Your task to perform on an android device: Go to network settings Image 0: 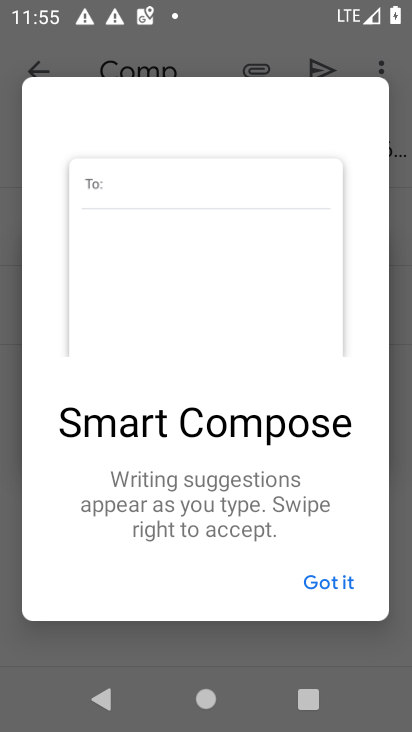
Step 0: press home button
Your task to perform on an android device: Go to network settings Image 1: 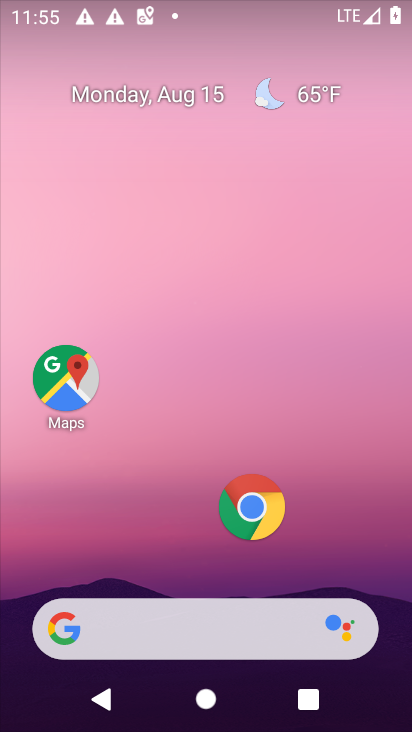
Step 1: drag from (162, 569) to (173, 73)
Your task to perform on an android device: Go to network settings Image 2: 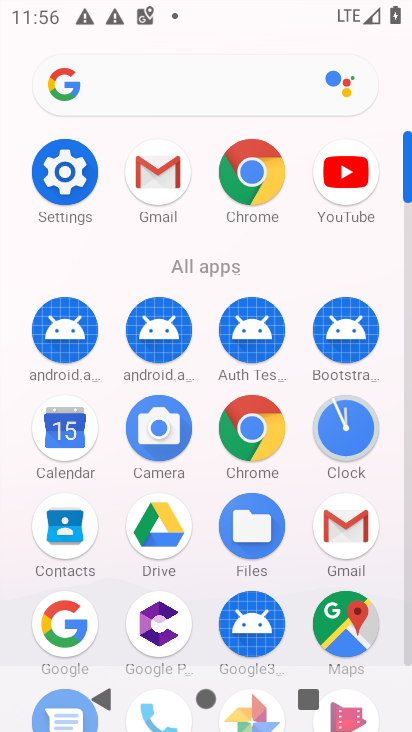
Step 2: click (69, 174)
Your task to perform on an android device: Go to network settings Image 3: 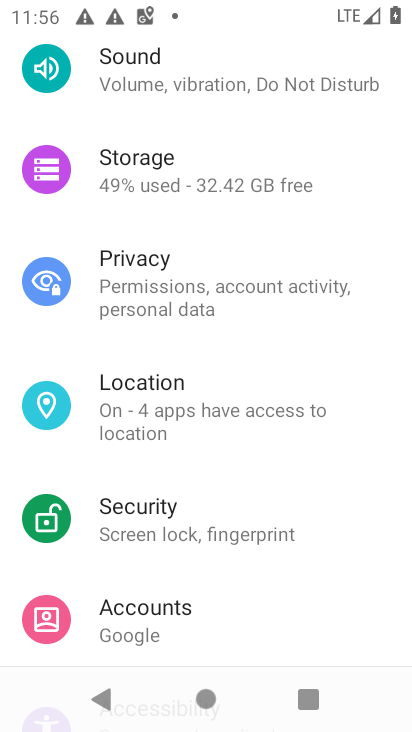
Step 3: drag from (232, 131) to (167, 416)
Your task to perform on an android device: Go to network settings Image 4: 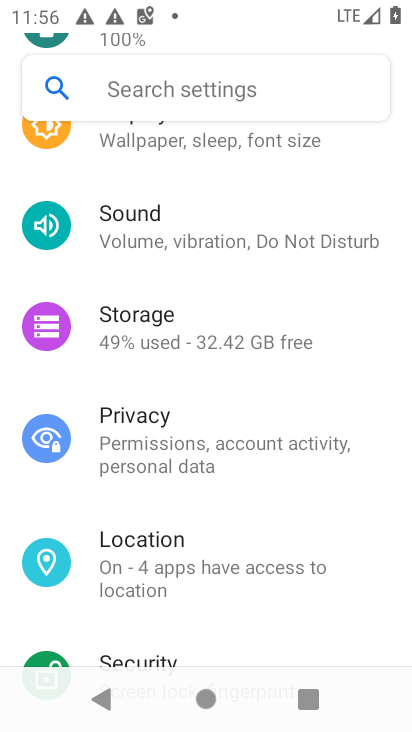
Step 4: drag from (196, 184) to (234, 687)
Your task to perform on an android device: Go to network settings Image 5: 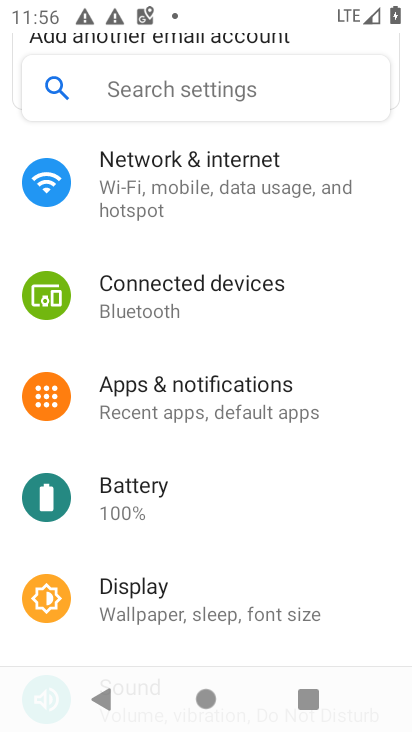
Step 5: click (179, 160)
Your task to perform on an android device: Go to network settings Image 6: 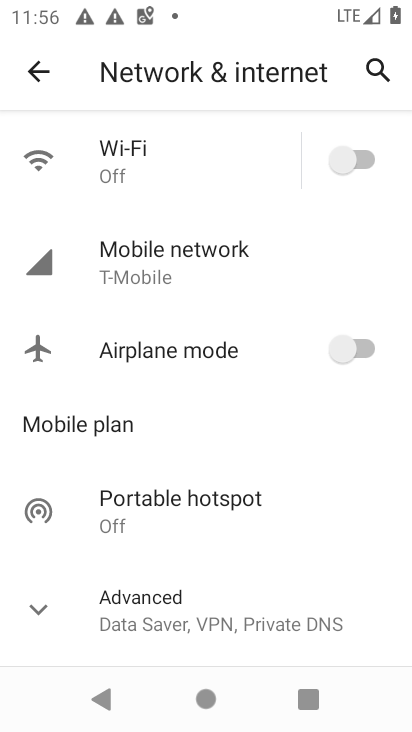
Step 6: task complete